Your task to perform on an android device: Open the calendar app, open the side menu, and click the "Day" option Image 0: 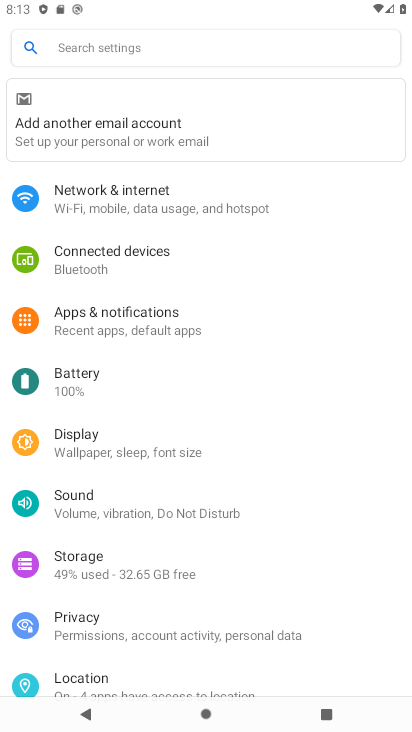
Step 0: press home button
Your task to perform on an android device: Open the calendar app, open the side menu, and click the "Day" option Image 1: 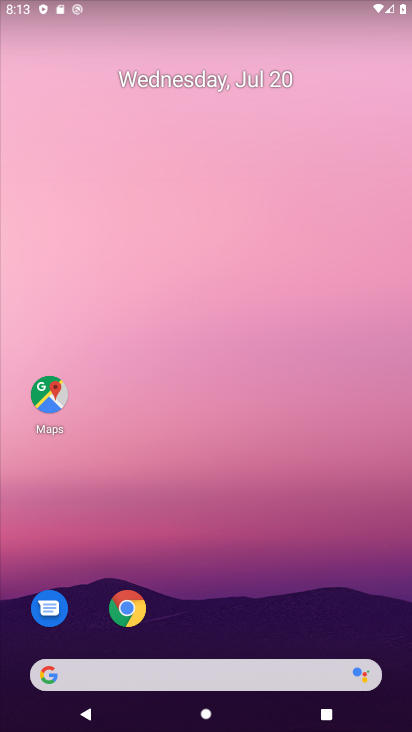
Step 1: drag from (263, 586) to (277, 108)
Your task to perform on an android device: Open the calendar app, open the side menu, and click the "Day" option Image 2: 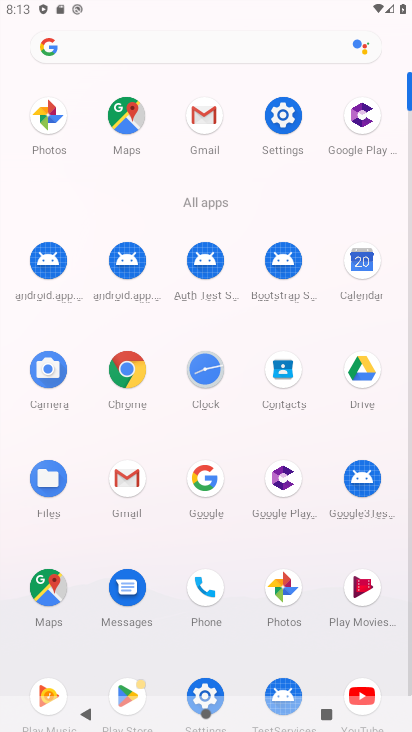
Step 2: click (360, 268)
Your task to perform on an android device: Open the calendar app, open the side menu, and click the "Day" option Image 3: 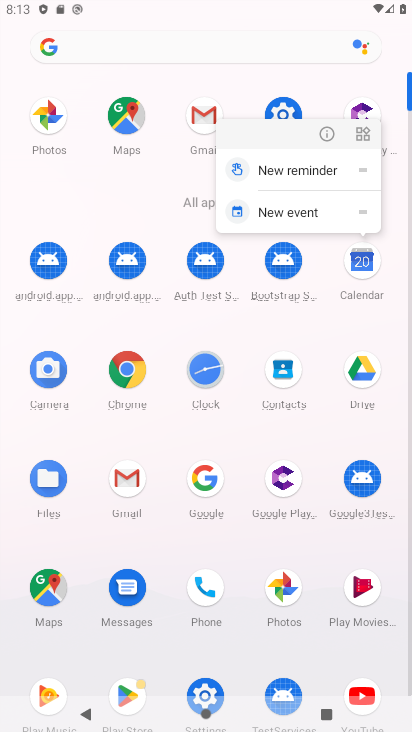
Step 3: click (360, 268)
Your task to perform on an android device: Open the calendar app, open the side menu, and click the "Day" option Image 4: 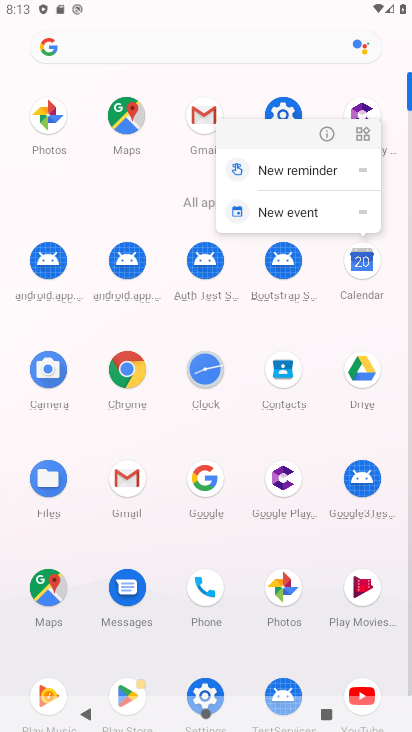
Step 4: click (358, 264)
Your task to perform on an android device: Open the calendar app, open the side menu, and click the "Day" option Image 5: 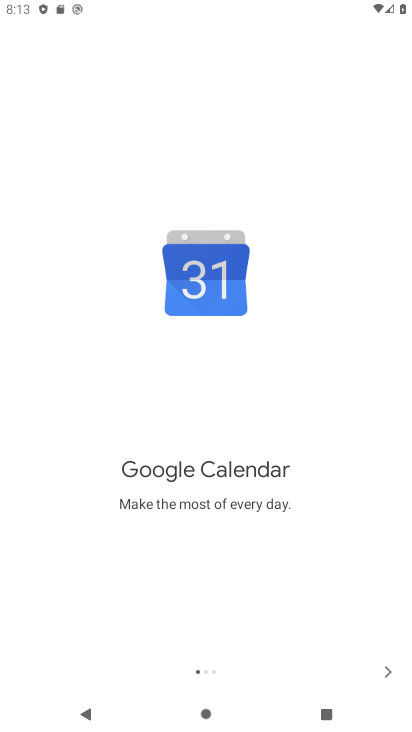
Step 5: click (384, 673)
Your task to perform on an android device: Open the calendar app, open the side menu, and click the "Day" option Image 6: 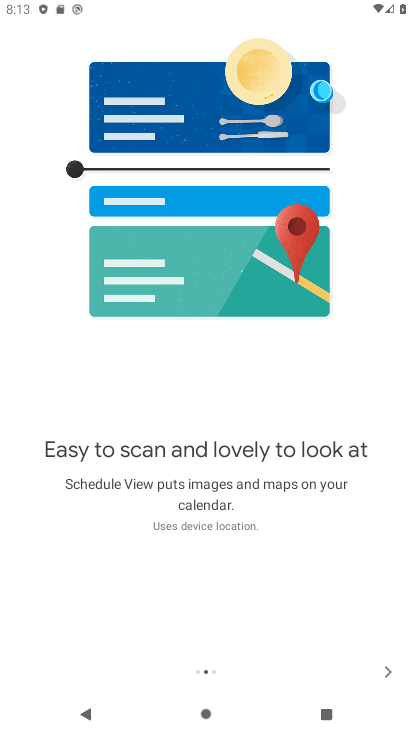
Step 6: click (385, 672)
Your task to perform on an android device: Open the calendar app, open the side menu, and click the "Day" option Image 7: 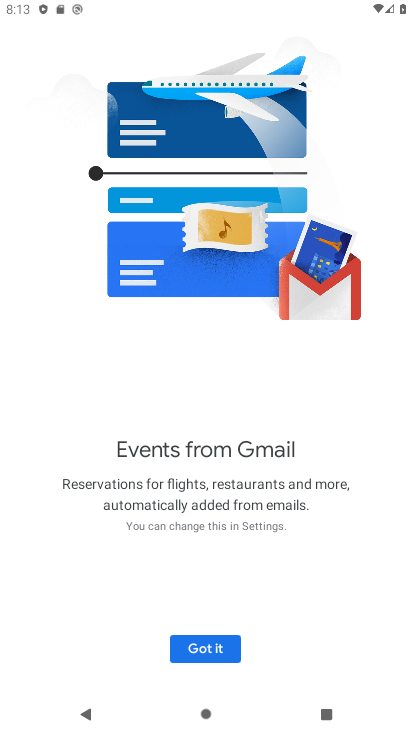
Step 7: click (220, 643)
Your task to perform on an android device: Open the calendar app, open the side menu, and click the "Day" option Image 8: 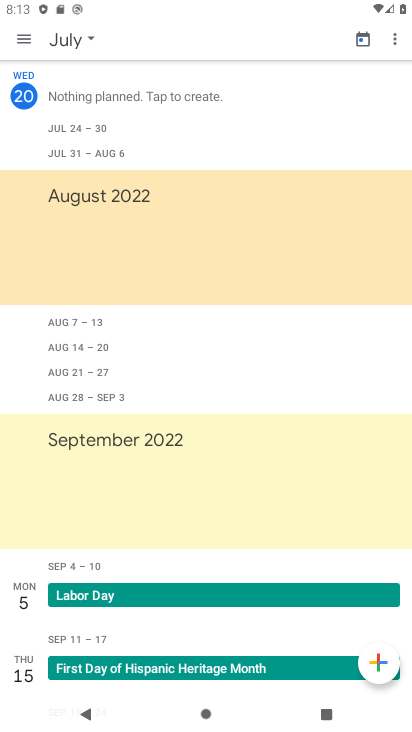
Step 8: click (30, 30)
Your task to perform on an android device: Open the calendar app, open the side menu, and click the "Day" option Image 9: 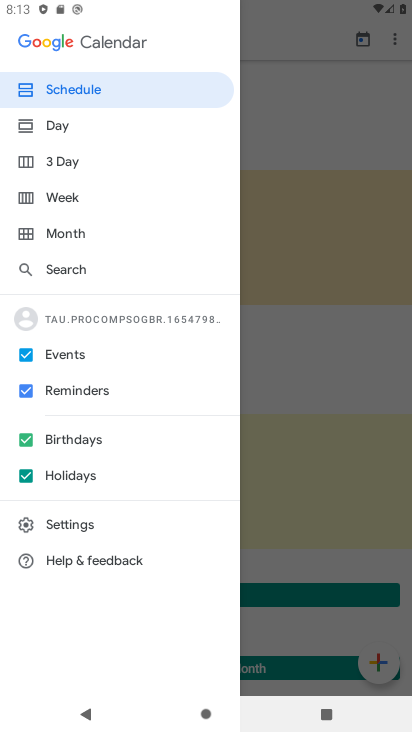
Step 9: click (94, 124)
Your task to perform on an android device: Open the calendar app, open the side menu, and click the "Day" option Image 10: 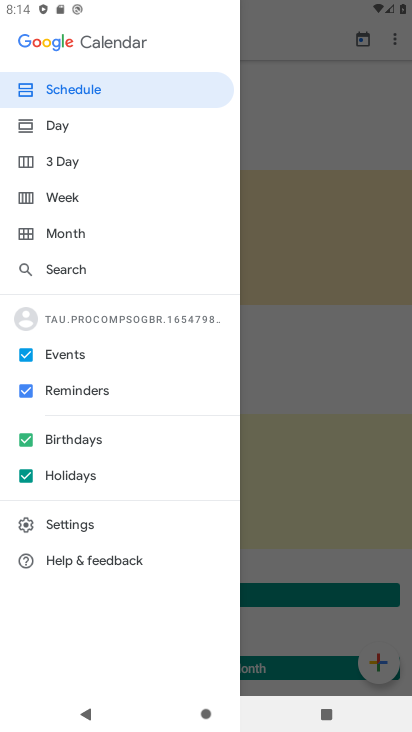
Step 10: task complete